Your task to perform on an android device: open app "Microsoft Outlook" (install if not already installed) Image 0: 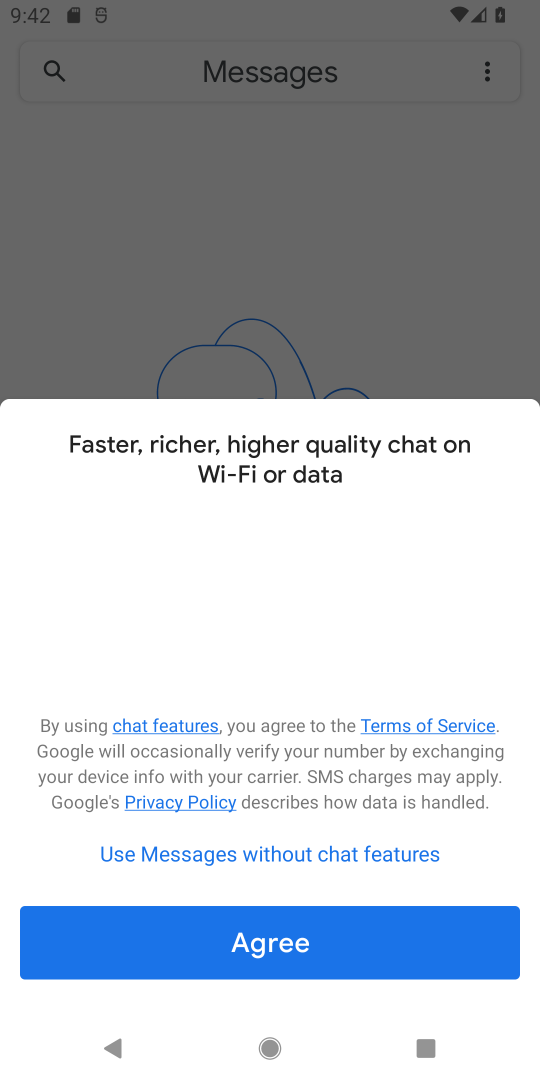
Step 0: press home button
Your task to perform on an android device: open app "Microsoft Outlook" (install if not already installed) Image 1: 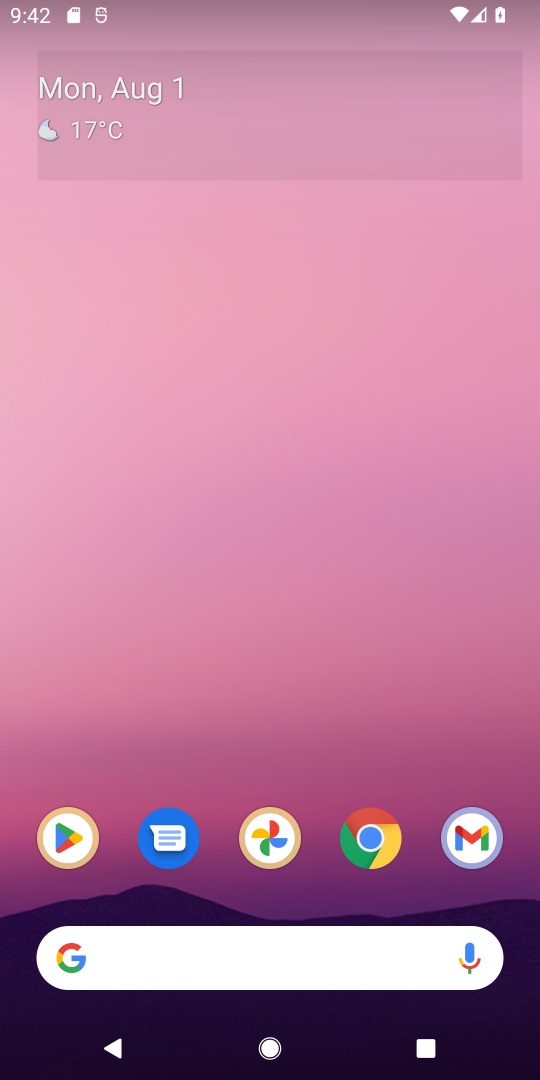
Step 1: click (66, 825)
Your task to perform on an android device: open app "Microsoft Outlook" (install if not already installed) Image 2: 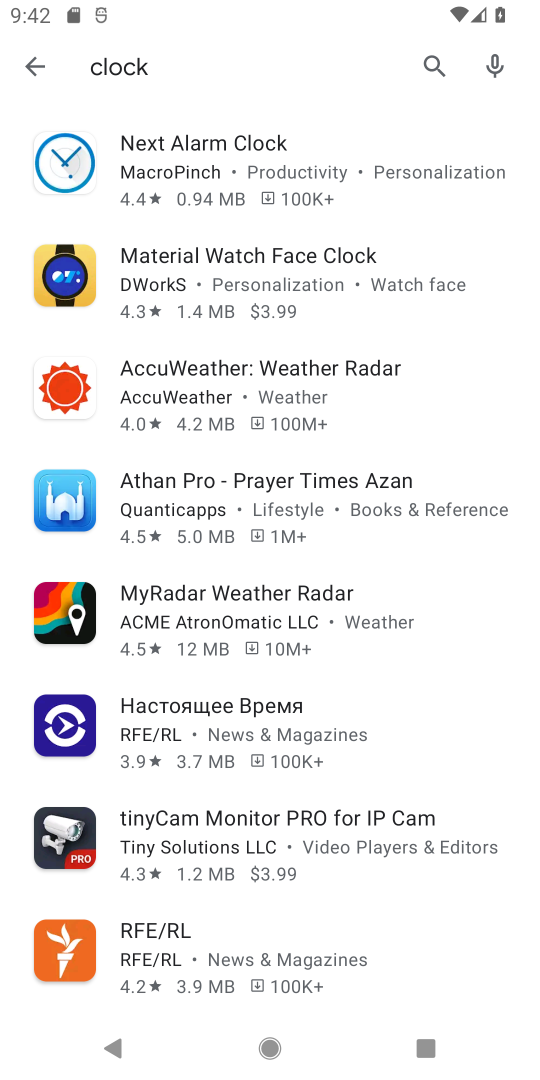
Step 2: click (418, 64)
Your task to perform on an android device: open app "Microsoft Outlook" (install if not already installed) Image 3: 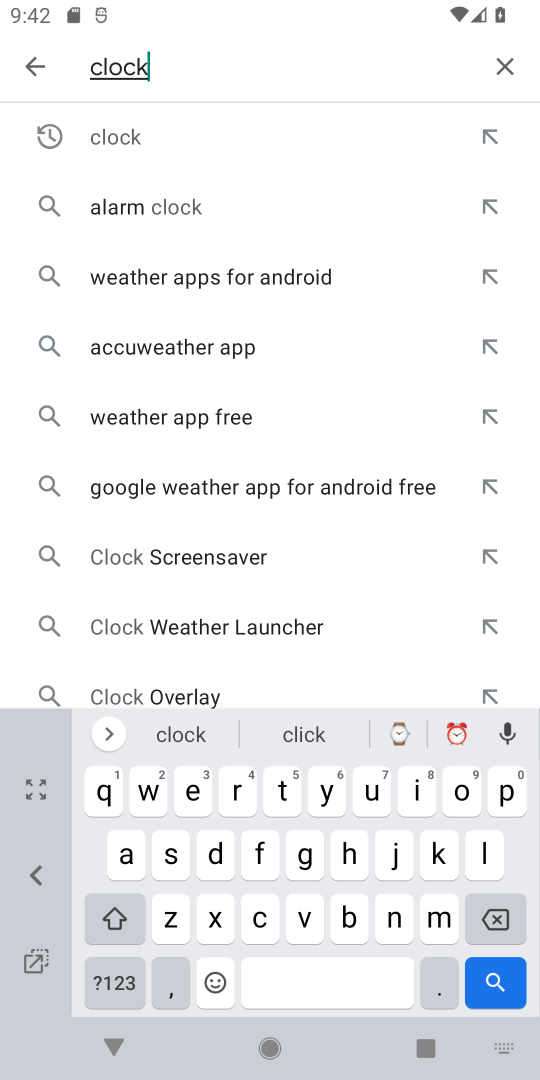
Step 3: click (508, 67)
Your task to perform on an android device: open app "Microsoft Outlook" (install if not already installed) Image 4: 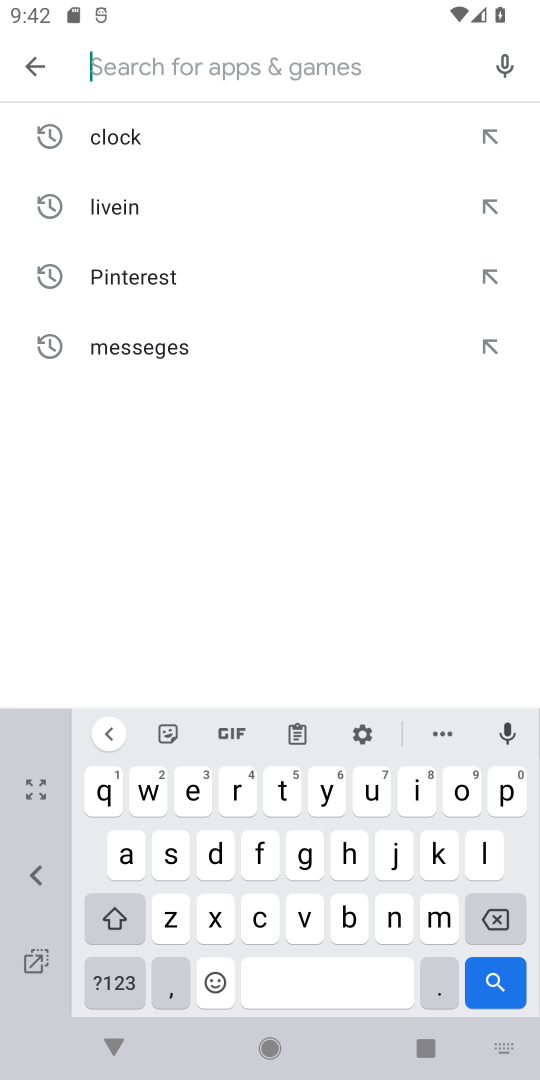
Step 4: type "outlook"
Your task to perform on an android device: open app "Microsoft Outlook" (install if not already installed) Image 5: 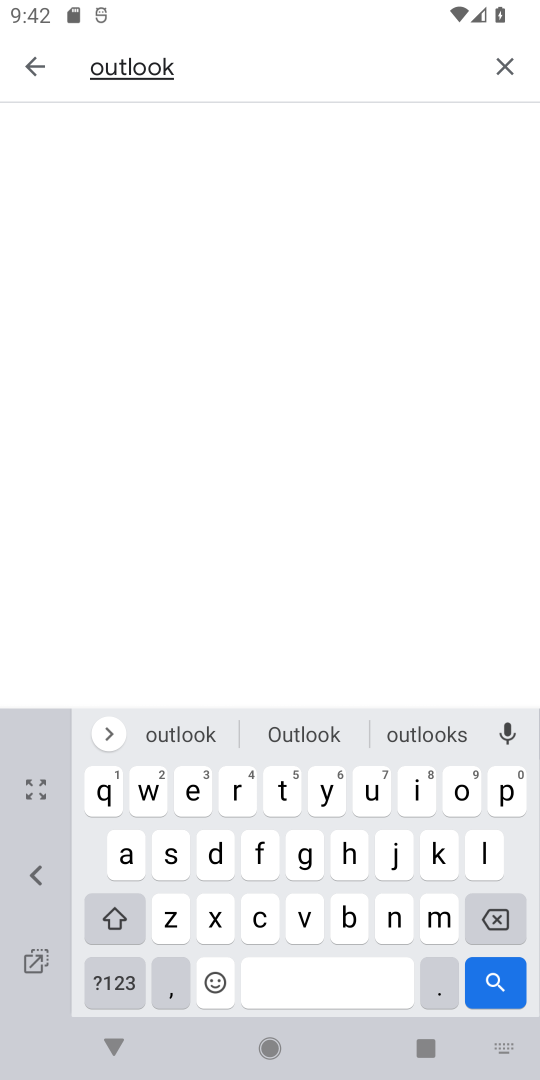
Step 5: click (336, 731)
Your task to perform on an android device: open app "Microsoft Outlook" (install if not already installed) Image 6: 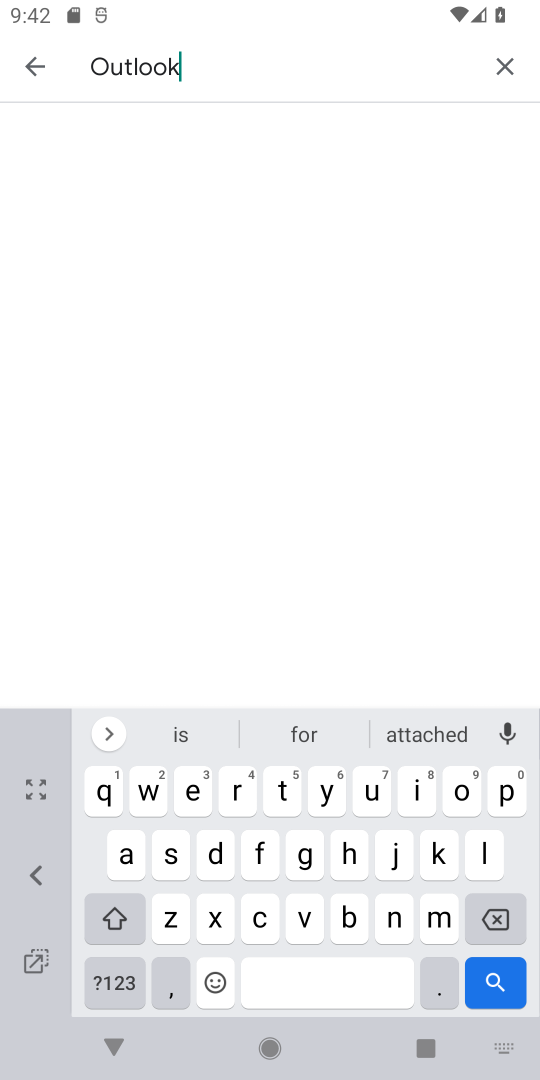
Step 6: click (500, 992)
Your task to perform on an android device: open app "Microsoft Outlook" (install if not already installed) Image 7: 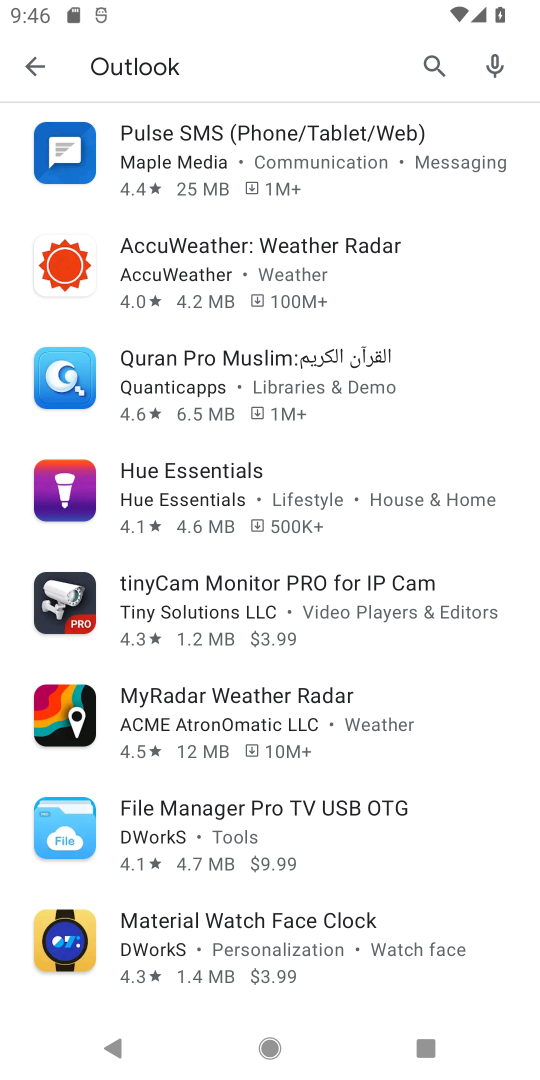
Step 7: task complete